Your task to perform on an android device: What's the weather today? Image 0: 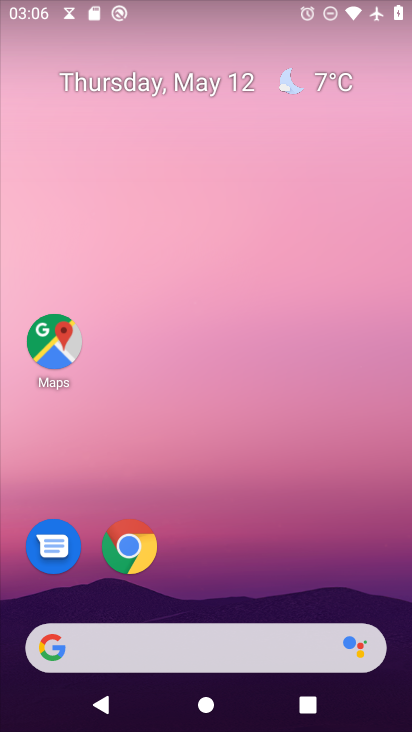
Step 0: click (319, 79)
Your task to perform on an android device: What's the weather today? Image 1: 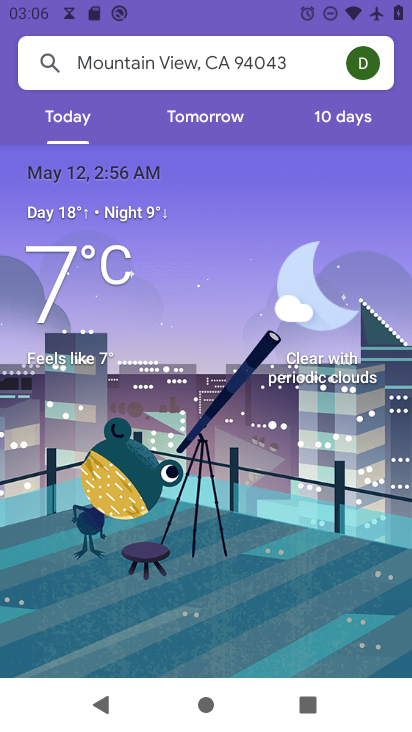
Step 1: task complete